Your task to perform on an android device: change the upload size in google photos Image 0: 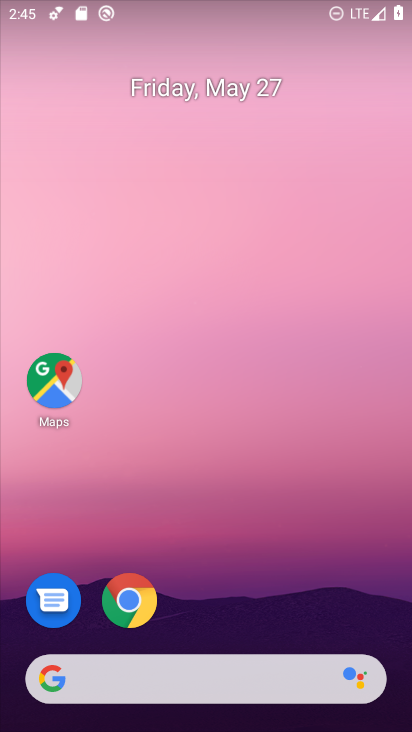
Step 0: drag from (202, 713) to (206, 7)
Your task to perform on an android device: change the upload size in google photos Image 1: 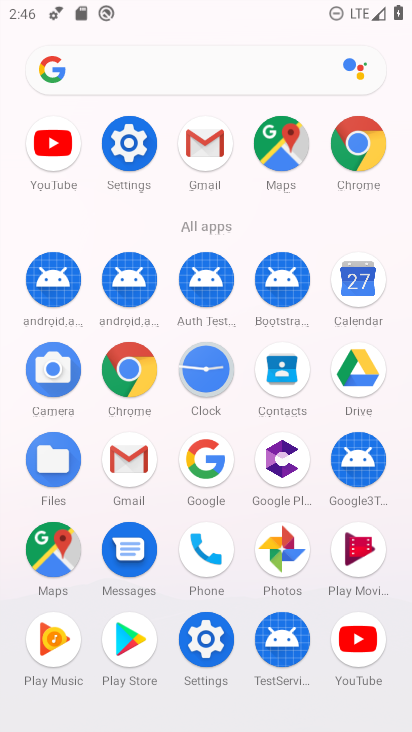
Step 1: click (284, 543)
Your task to perform on an android device: change the upload size in google photos Image 2: 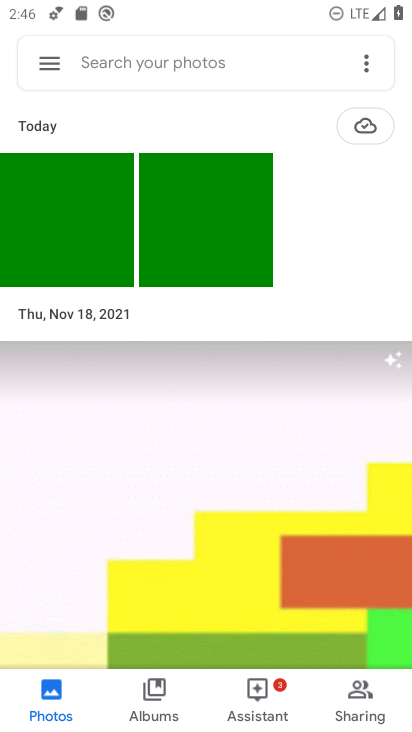
Step 2: click (51, 60)
Your task to perform on an android device: change the upload size in google photos Image 3: 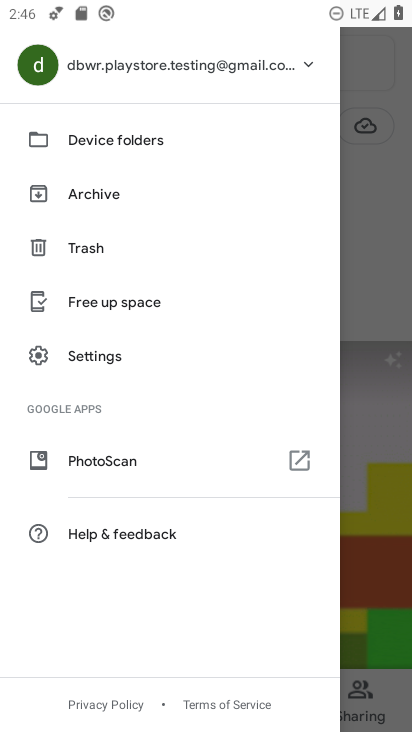
Step 3: click (106, 354)
Your task to perform on an android device: change the upload size in google photos Image 4: 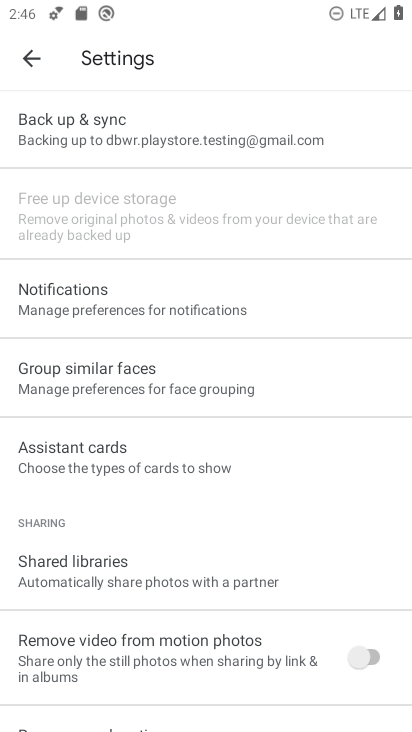
Step 4: click (107, 117)
Your task to perform on an android device: change the upload size in google photos Image 5: 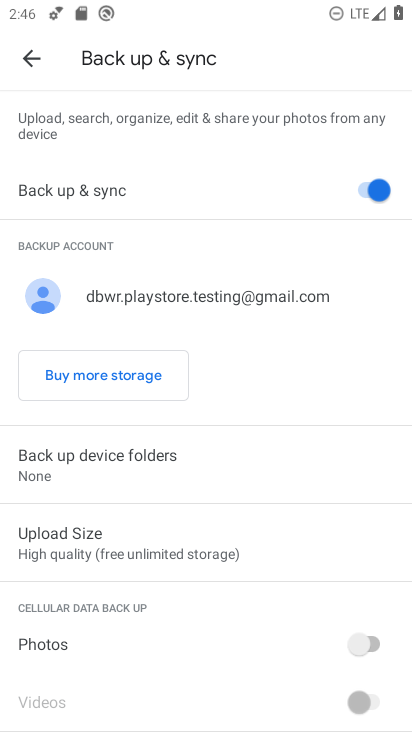
Step 5: click (104, 545)
Your task to perform on an android device: change the upload size in google photos Image 6: 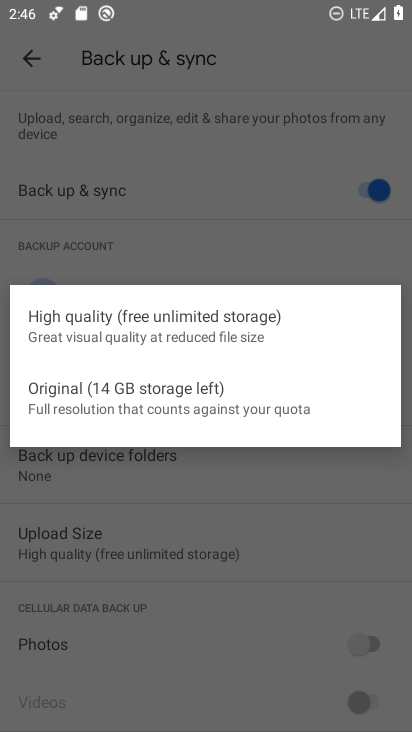
Step 6: click (95, 399)
Your task to perform on an android device: change the upload size in google photos Image 7: 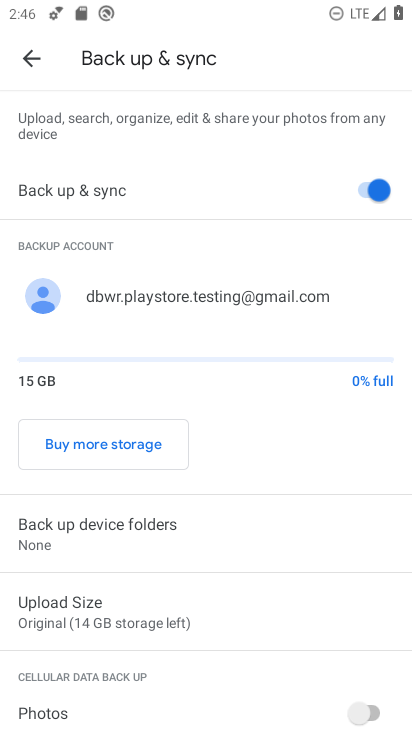
Step 7: task complete